Your task to perform on an android device: turn on translation in the chrome app Image 0: 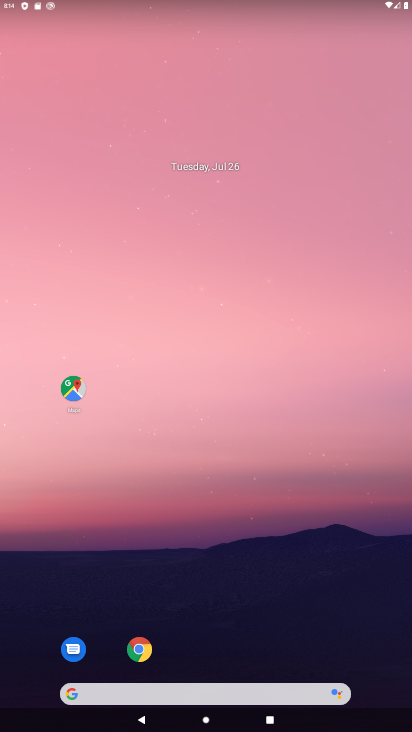
Step 0: click (137, 649)
Your task to perform on an android device: turn on translation in the chrome app Image 1: 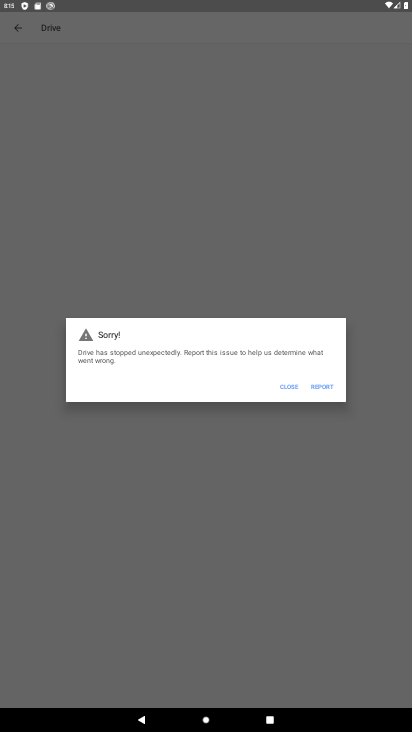
Step 1: click (298, 392)
Your task to perform on an android device: turn on translation in the chrome app Image 2: 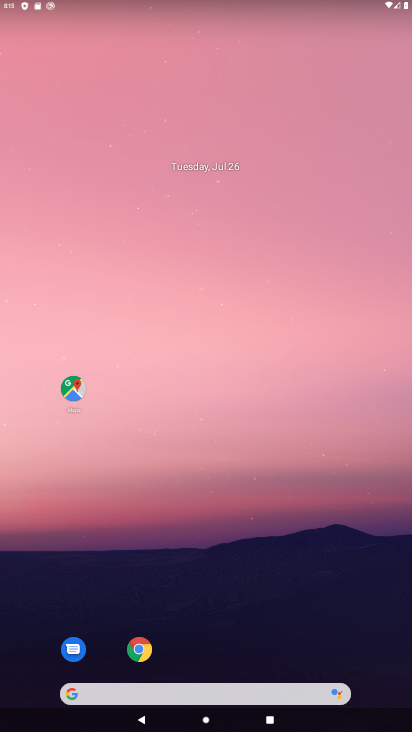
Step 2: click (141, 654)
Your task to perform on an android device: turn on translation in the chrome app Image 3: 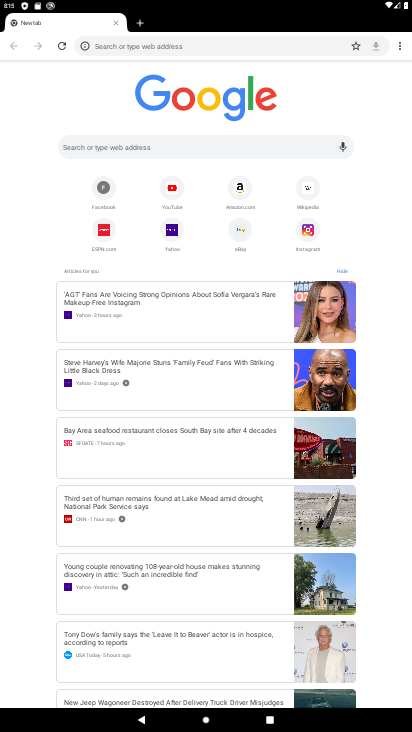
Step 3: click (395, 51)
Your task to perform on an android device: turn on translation in the chrome app Image 4: 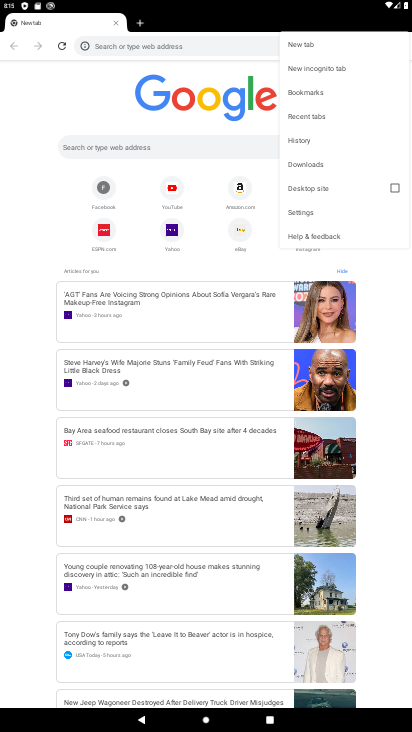
Step 4: click (316, 208)
Your task to perform on an android device: turn on translation in the chrome app Image 5: 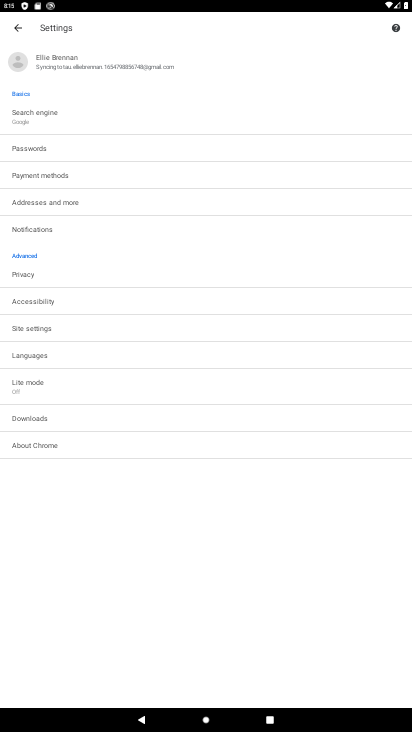
Step 5: click (70, 361)
Your task to perform on an android device: turn on translation in the chrome app Image 6: 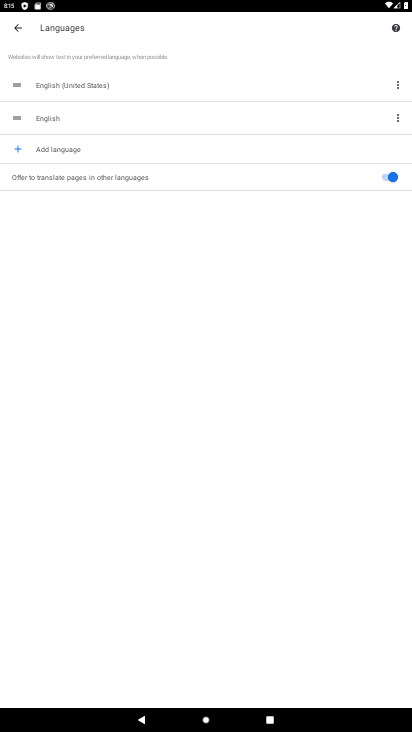
Step 6: task complete